Your task to perform on an android device: turn off notifications settings in the gmail app Image 0: 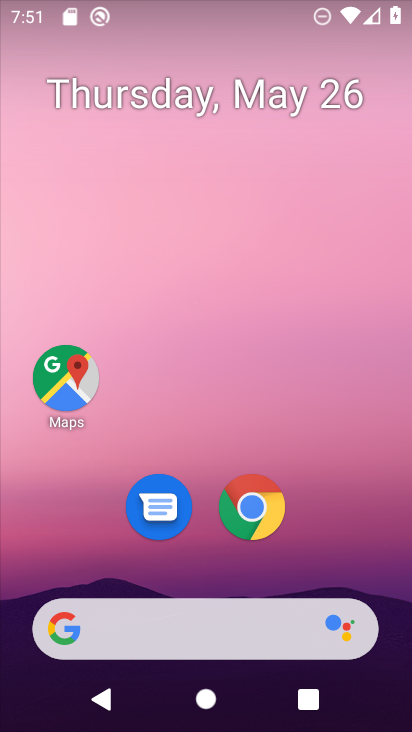
Step 0: drag from (262, 576) to (331, 56)
Your task to perform on an android device: turn off notifications settings in the gmail app Image 1: 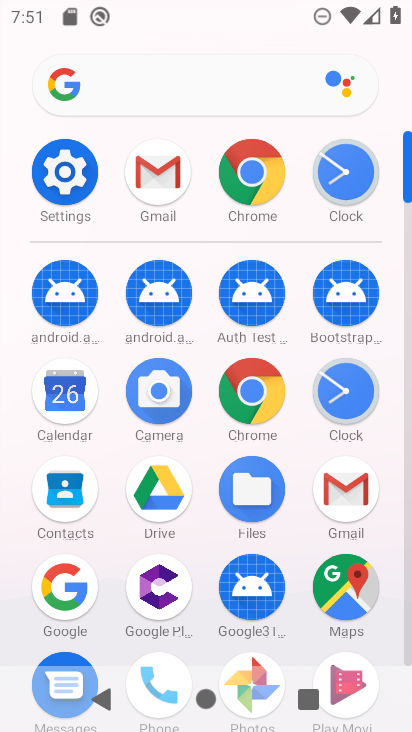
Step 1: click (156, 182)
Your task to perform on an android device: turn off notifications settings in the gmail app Image 2: 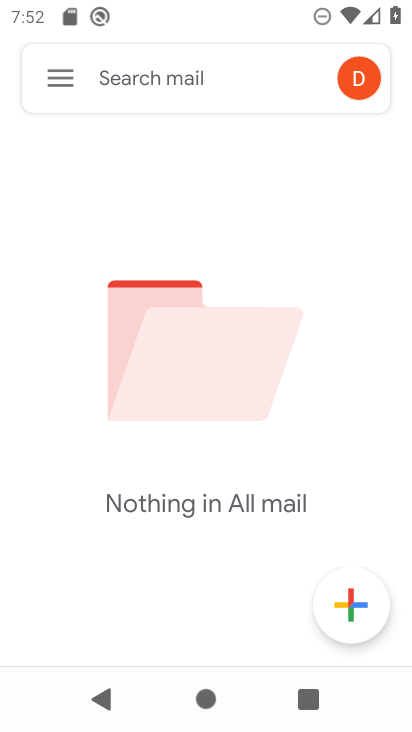
Step 2: click (60, 80)
Your task to perform on an android device: turn off notifications settings in the gmail app Image 3: 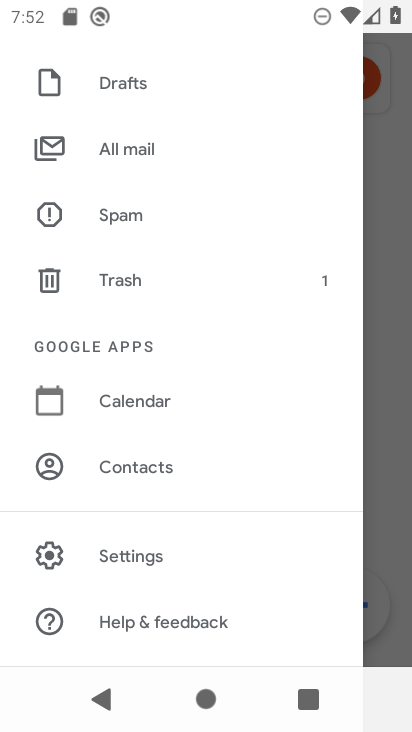
Step 3: click (148, 565)
Your task to perform on an android device: turn off notifications settings in the gmail app Image 4: 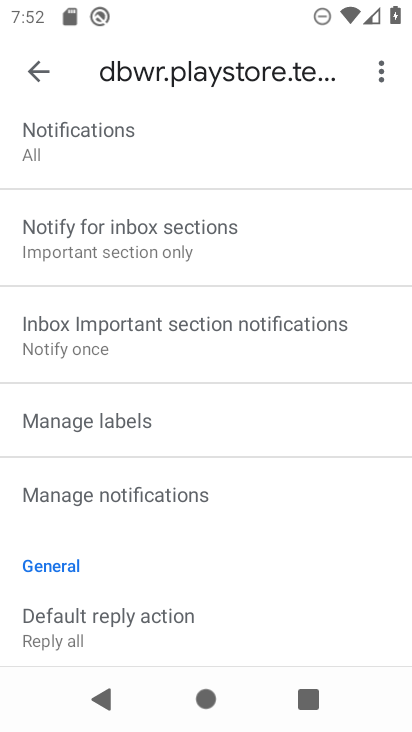
Step 4: click (93, 144)
Your task to perform on an android device: turn off notifications settings in the gmail app Image 5: 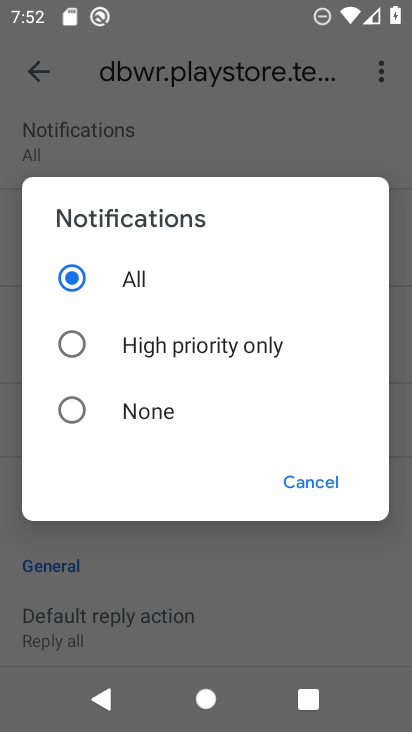
Step 5: click (68, 421)
Your task to perform on an android device: turn off notifications settings in the gmail app Image 6: 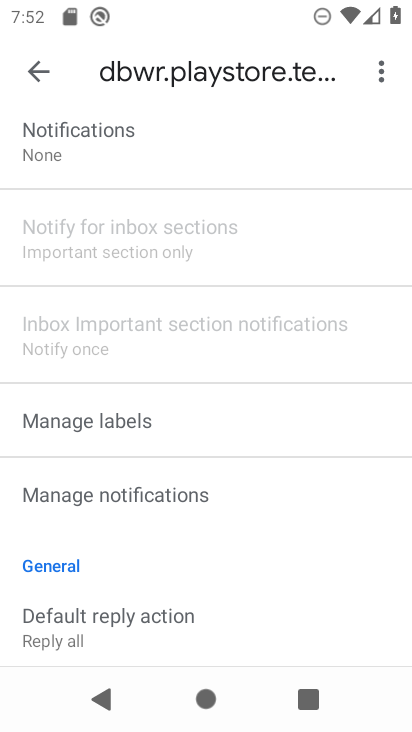
Step 6: task complete